Your task to perform on an android device: change the clock display to digital Image 0: 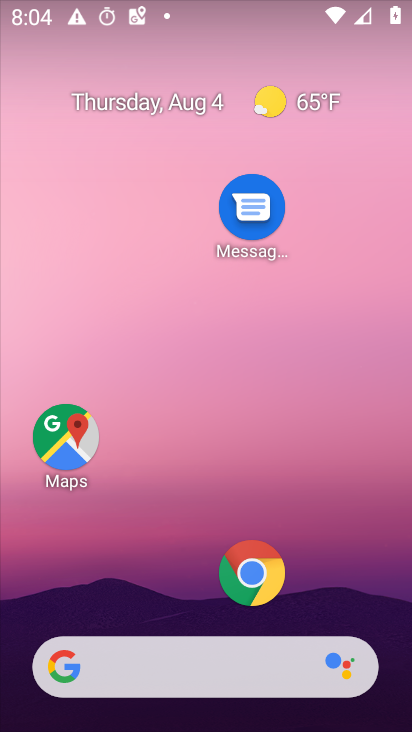
Step 0: press home button
Your task to perform on an android device: change the clock display to digital Image 1: 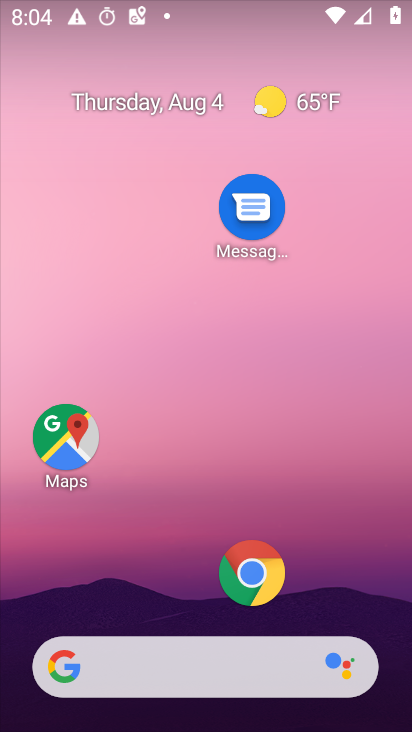
Step 1: drag from (142, 618) to (186, 205)
Your task to perform on an android device: change the clock display to digital Image 2: 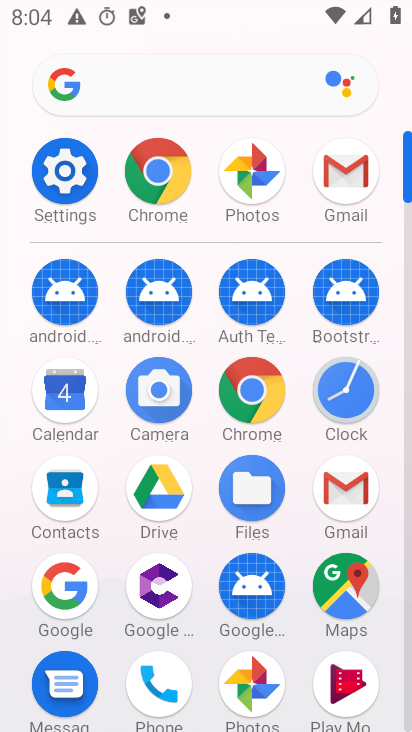
Step 2: click (336, 391)
Your task to perform on an android device: change the clock display to digital Image 3: 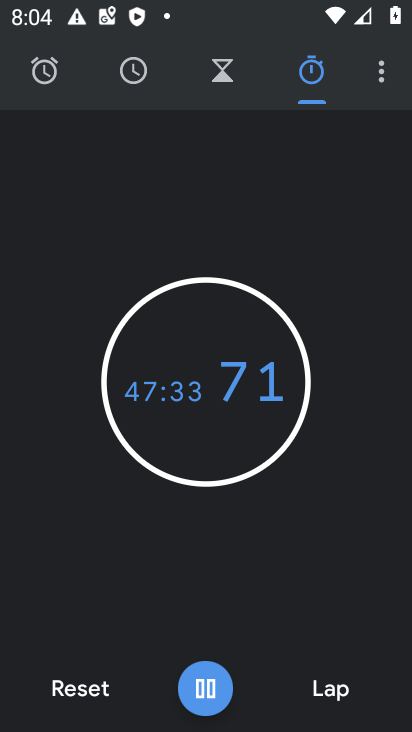
Step 3: click (387, 80)
Your task to perform on an android device: change the clock display to digital Image 4: 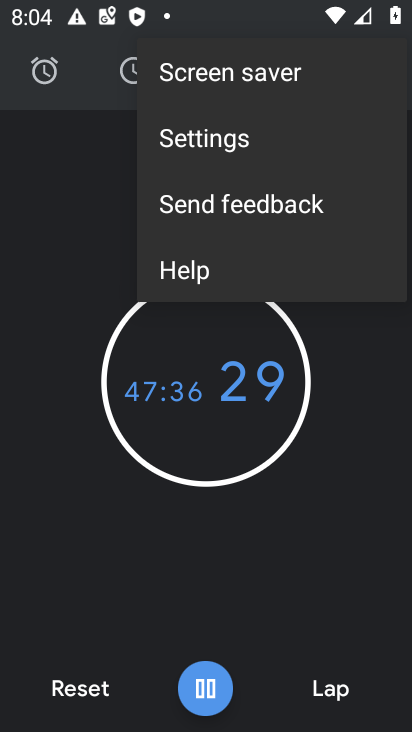
Step 4: click (241, 145)
Your task to perform on an android device: change the clock display to digital Image 5: 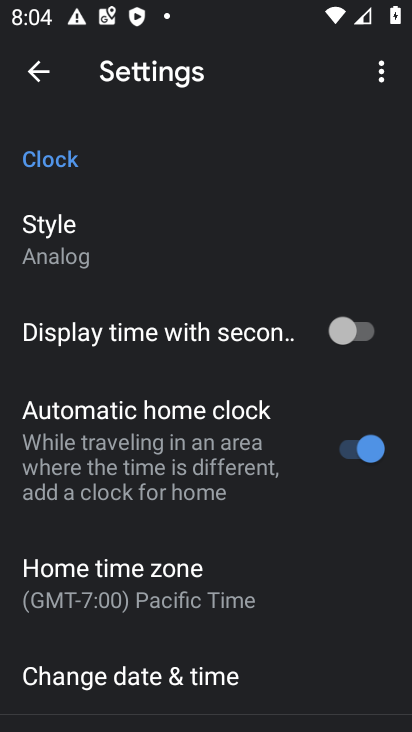
Step 5: click (43, 225)
Your task to perform on an android device: change the clock display to digital Image 6: 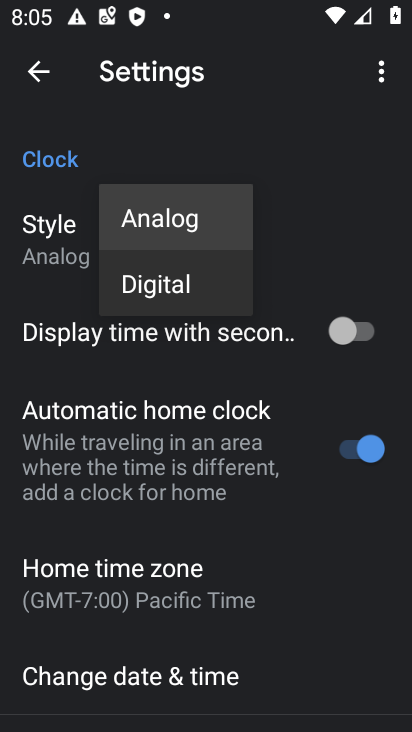
Step 6: click (154, 279)
Your task to perform on an android device: change the clock display to digital Image 7: 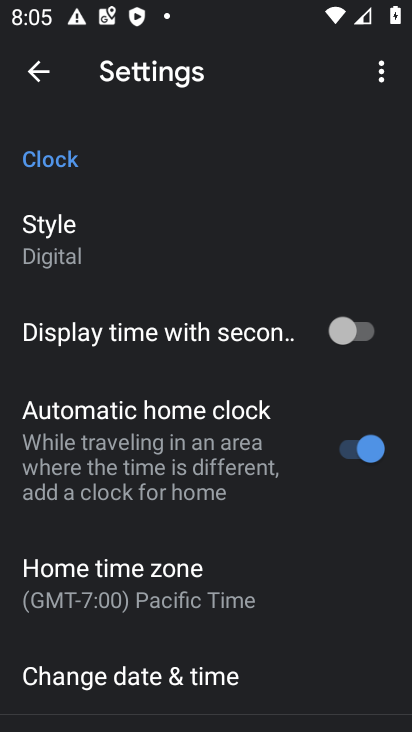
Step 7: task complete